Your task to perform on an android device: What's on my calendar tomorrow? Image 0: 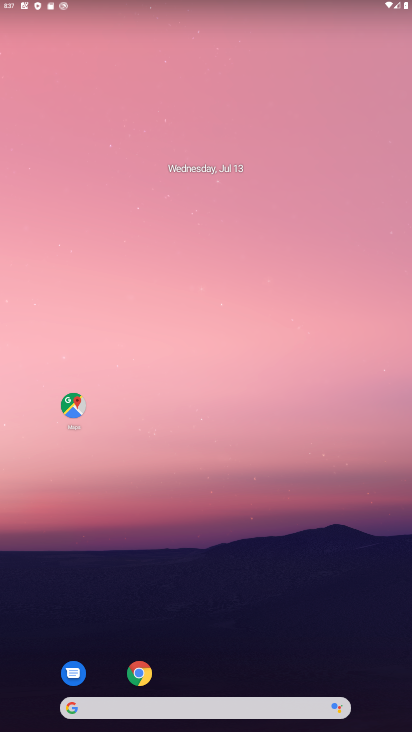
Step 0: click (190, 166)
Your task to perform on an android device: What's on my calendar tomorrow? Image 1: 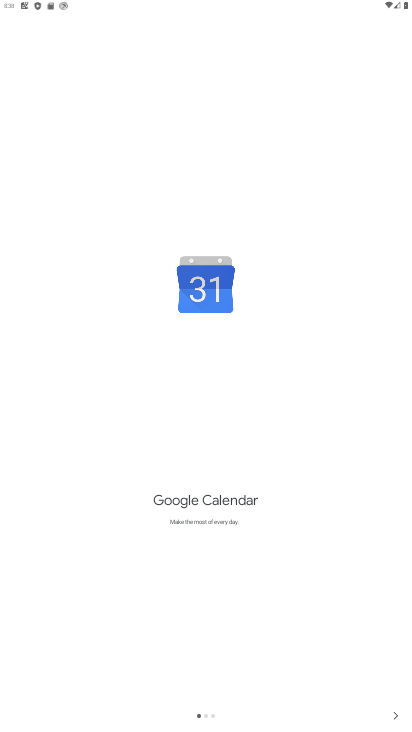
Step 1: click (394, 713)
Your task to perform on an android device: What's on my calendar tomorrow? Image 2: 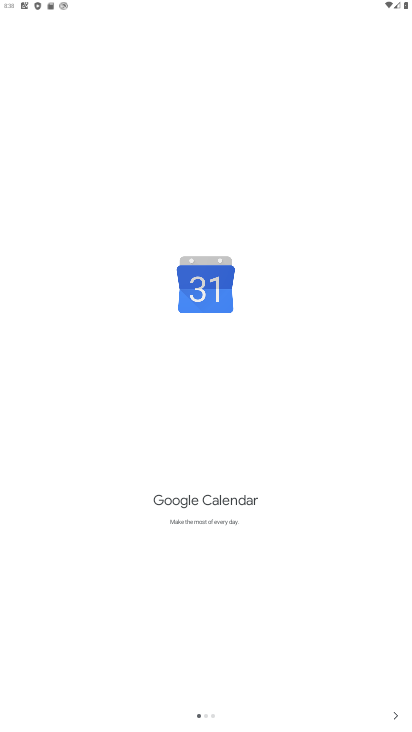
Step 2: click (394, 713)
Your task to perform on an android device: What's on my calendar tomorrow? Image 3: 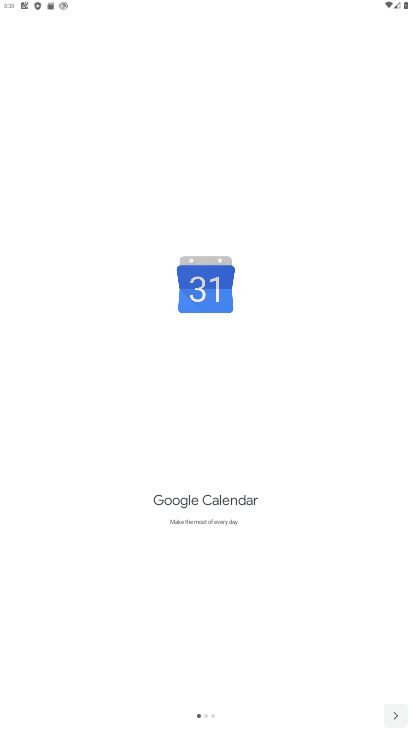
Step 3: click (394, 713)
Your task to perform on an android device: What's on my calendar tomorrow? Image 4: 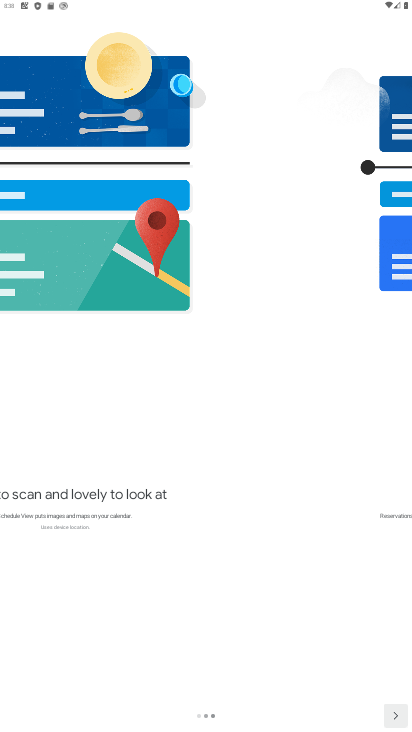
Step 4: click (394, 713)
Your task to perform on an android device: What's on my calendar tomorrow? Image 5: 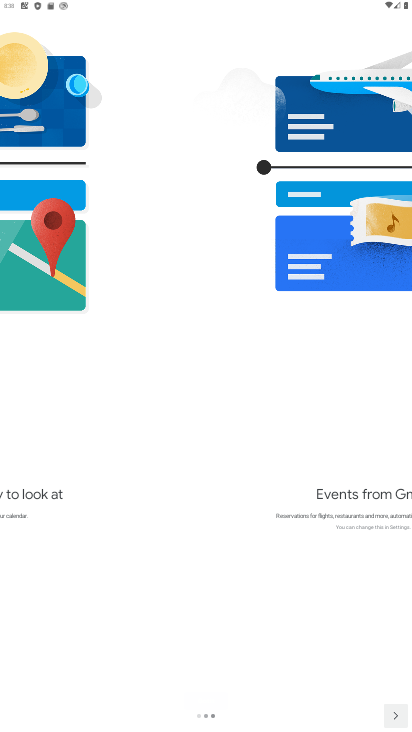
Step 5: click (394, 713)
Your task to perform on an android device: What's on my calendar tomorrow? Image 6: 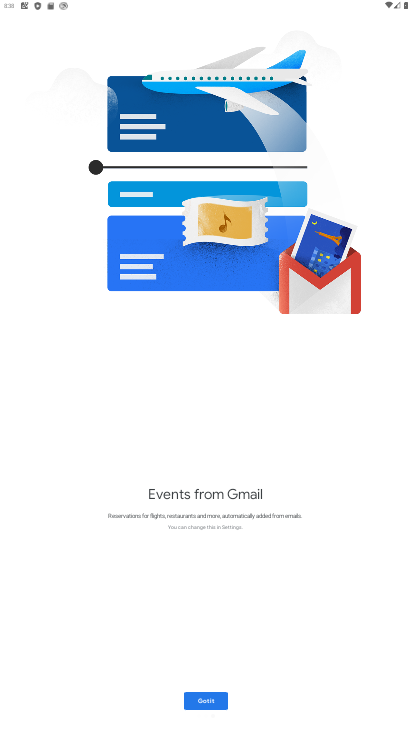
Step 6: click (394, 713)
Your task to perform on an android device: What's on my calendar tomorrow? Image 7: 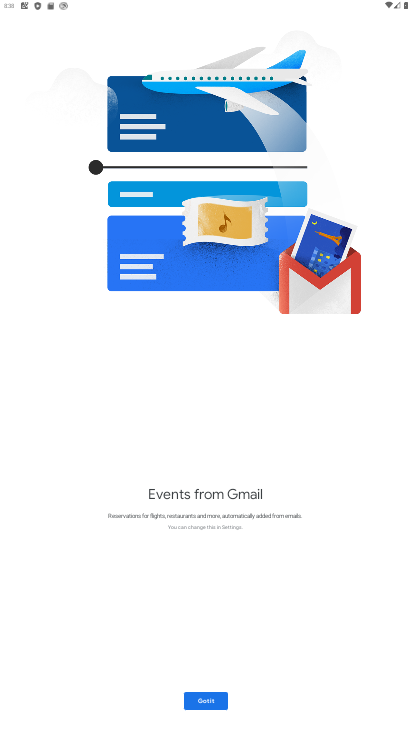
Step 7: click (394, 713)
Your task to perform on an android device: What's on my calendar tomorrow? Image 8: 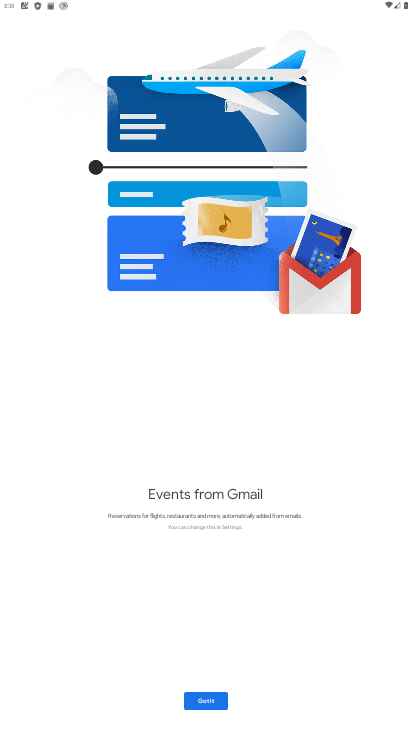
Step 8: click (394, 713)
Your task to perform on an android device: What's on my calendar tomorrow? Image 9: 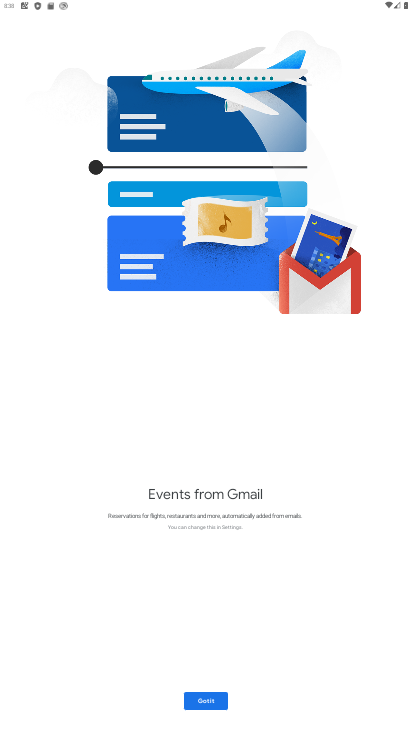
Step 9: click (205, 705)
Your task to perform on an android device: What's on my calendar tomorrow? Image 10: 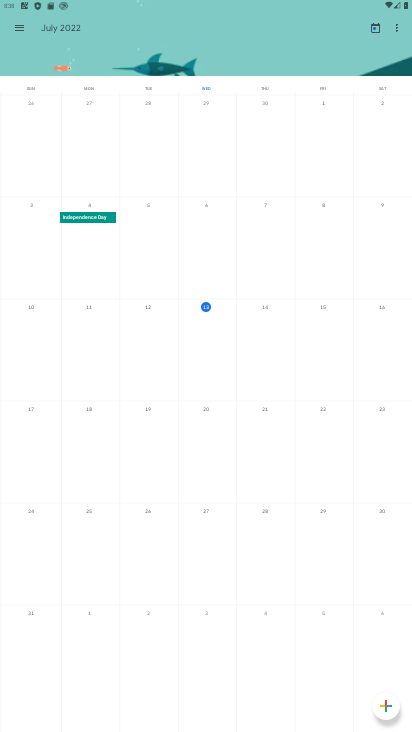
Step 10: task complete